Your task to perform on an android device: Open settings Image 0: 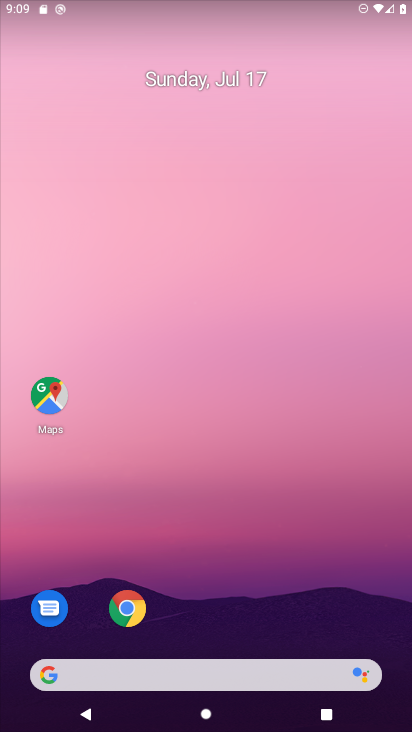
Step 0: drag from (212, 669) to (289, 54)
Your task to perform on an android device: Open settings Image 1: 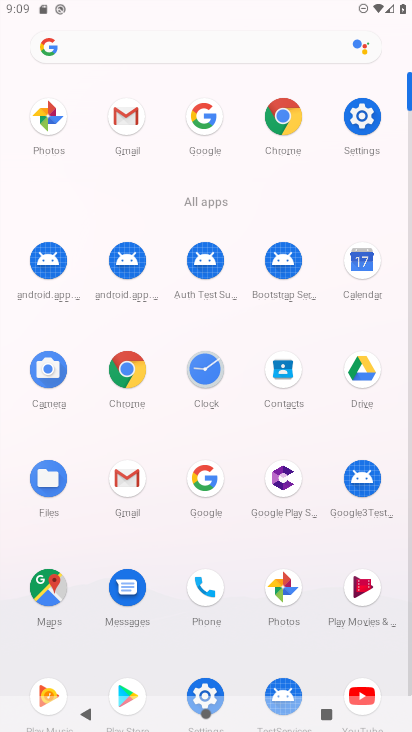
Step 1: click (363, 115)
Your task to perform on an android device: Open settings Image 2: 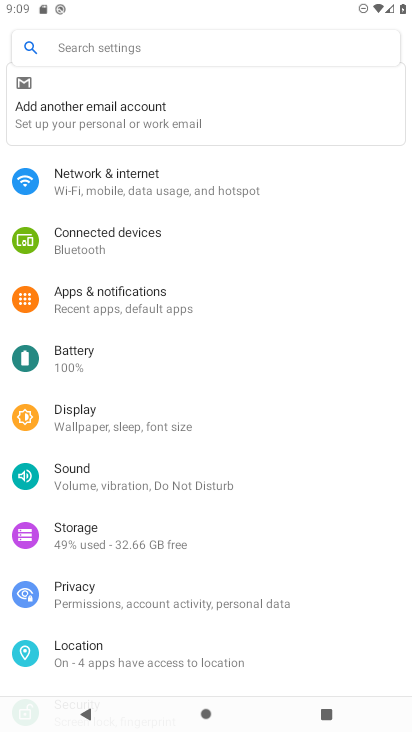
Step 2: task complete